Your task to perform on an android device: open a new tab in the chrome app Image 0: 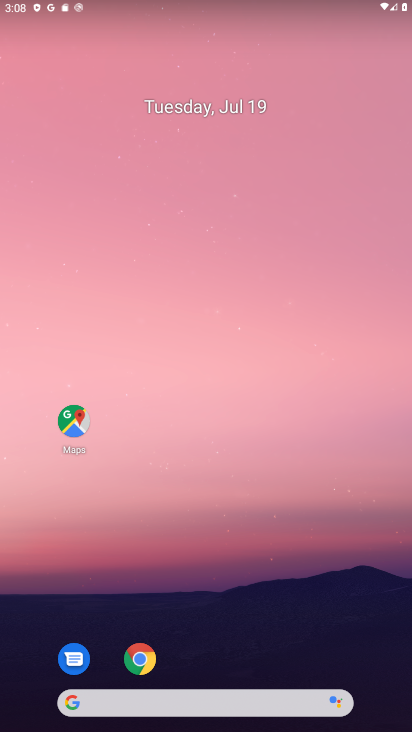
Step 0: drag from (274, 682) to (363, 87)
Your task to perform on an android device: open a new tab in the chrome app Image 1: 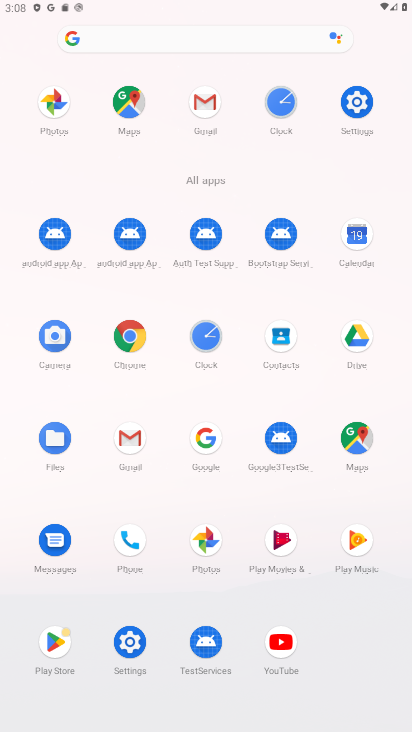
Step 1: click (118, 341)
Your task to perform on an android device: open a new tab in the chrome app Image 2: 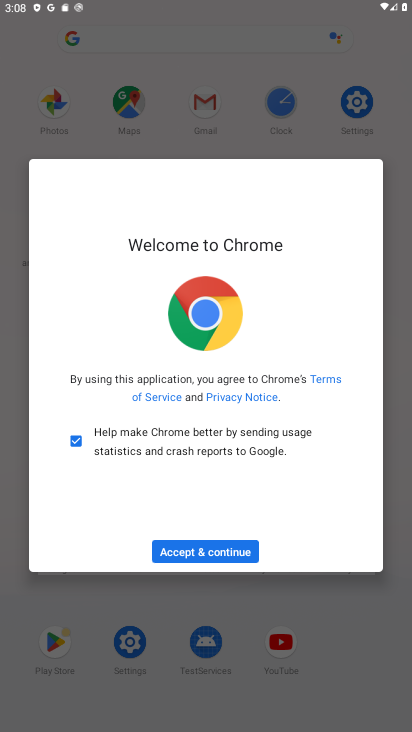
Step 2: click (205, 551)
Your task to perform on an android device: open a new tab in the chrome app Image 3: 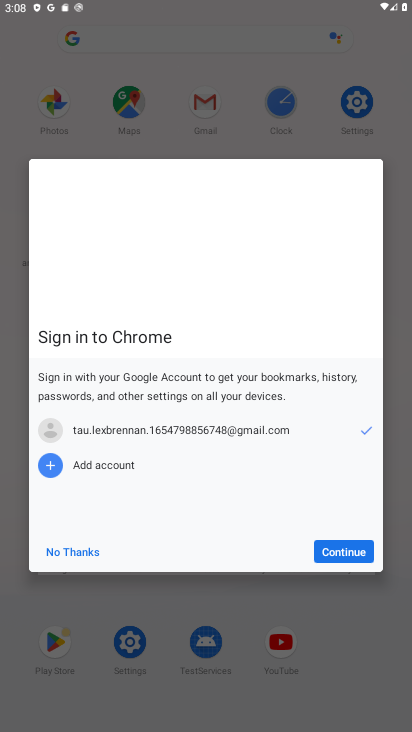
Step 3: click (336, 545)
Your task to perform on an android device: open a new tab in the chrome app Image 4: 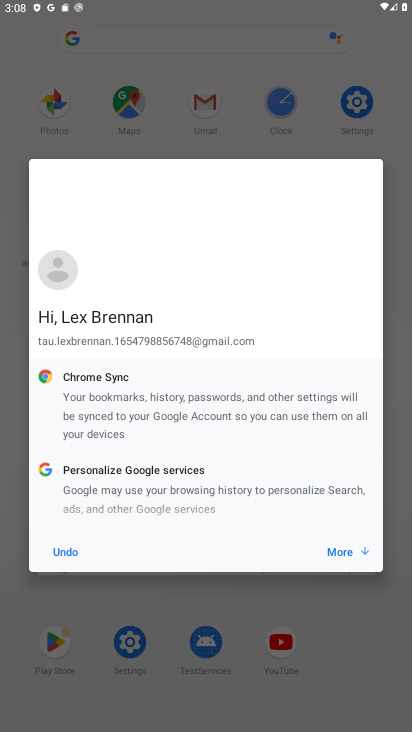
Step 4: click (358, 551)
Your task to perform on an android device: open a new tab in the chrome app Image 5: 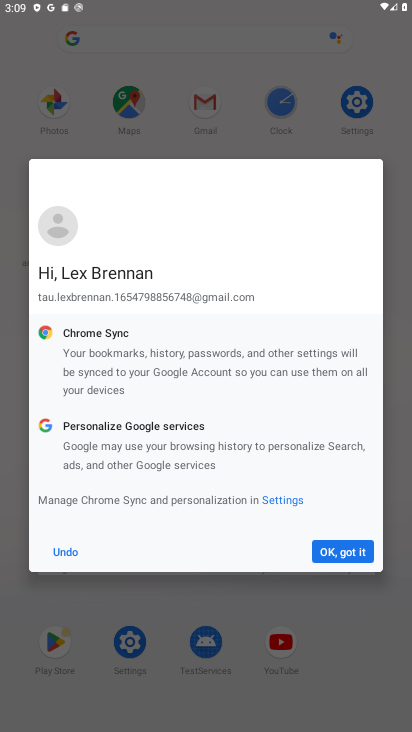
Step 5: click (358, 551)
Your task to perform on an android device: open a new tab in the chrome app Image 6: 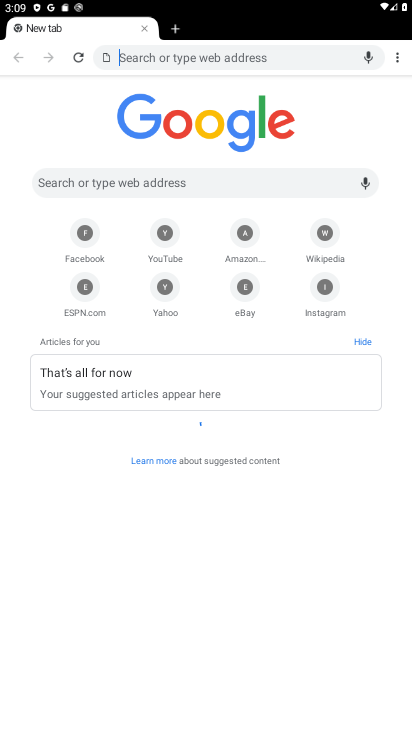
Step 6: task complete